Your task to perform on an android device: Open Google Chrome and click the shortcut for Amazon.com Image 0: 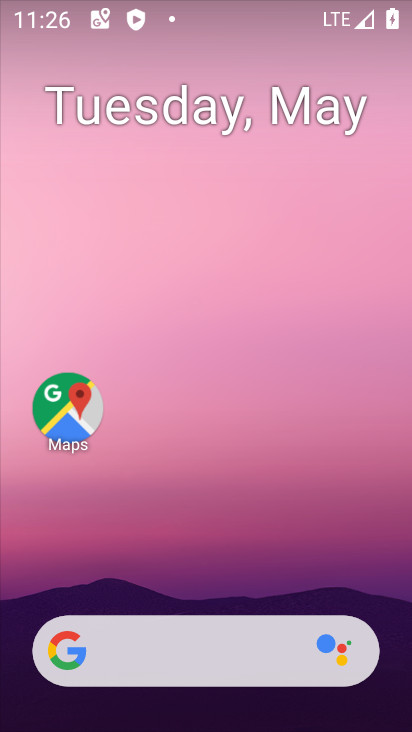
Step 0: drag from (171, 627) to (127, 29)
Your task to perform on an android device: Open Google Chrome and click the shortcut for Amazon.com Image 1: 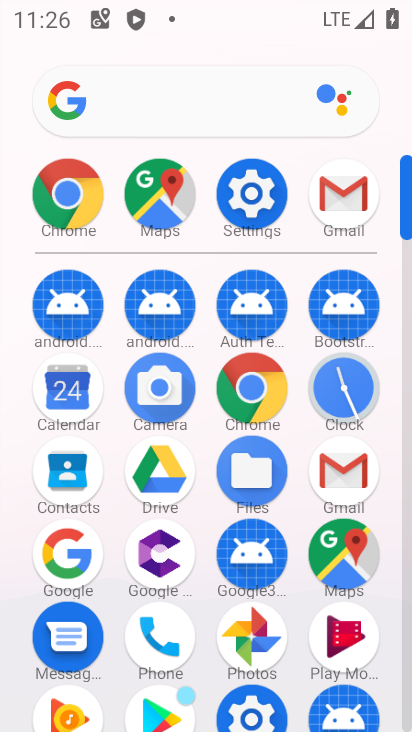
Step 1: click (75, 185)
Your task to perform on an android device: Open Google Chrome and click the shortcut for Amazon.com Image 2: 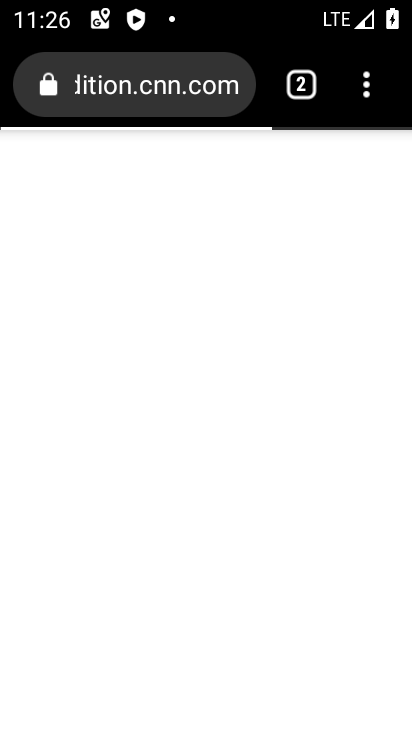
Step 2: click (189, 104)
Your task to perform on an android device: Open Google Chrome and click the shortcut for Amazon.com Image 3: 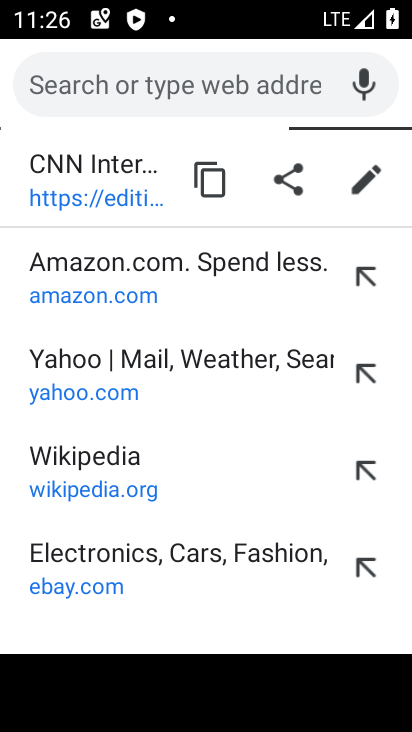
Step 3: type ""
Your task to perform on an android device: Open Google Chrome and click the shortcut for Amazon.com Image 4: 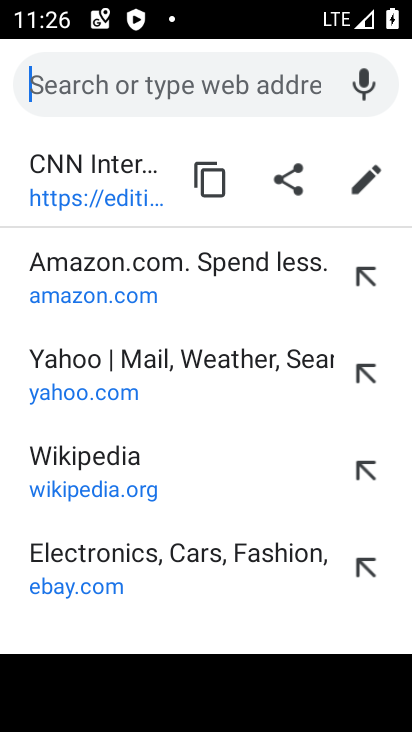
Step 4: press back button
Your task to perform on an android device: Open Google Chrome and click the shortcut for Amazon.com Image 5: 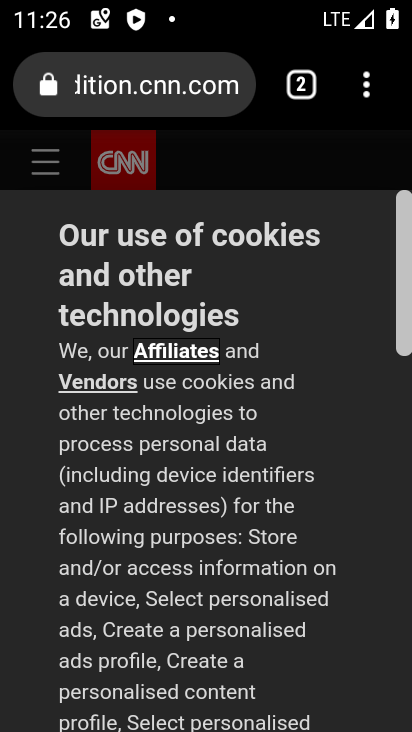
Step 5: click (304, 92)
Your task to perform on an android device: Open Google Chrome and click the shortcut for Amazon.com Image 6: 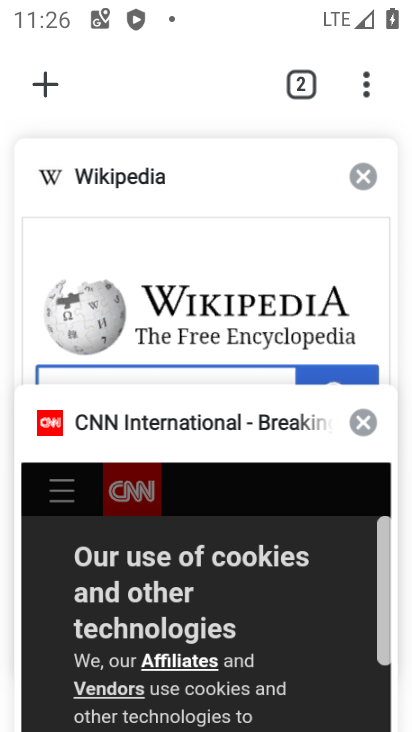
Step 6: click (38, 84)
Your task to perform on an android device: Open Google Chrome and click the shortcut for Amazon.com Image 7: 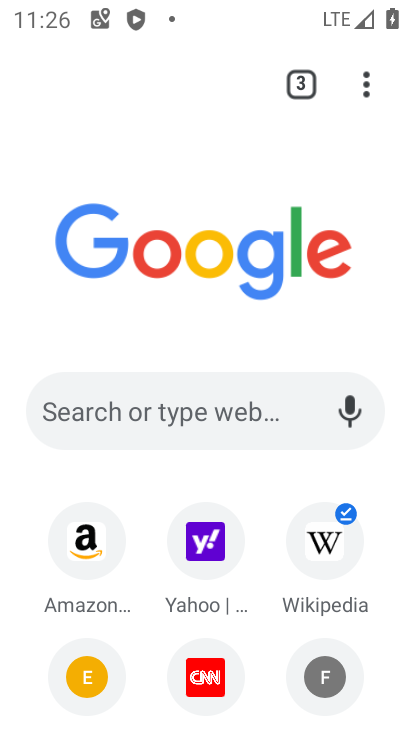
Step 7: click (90, 549)
Your task to perform on an android device: Open Google Chrome and click the shortcut for Amazon.com Image 8: 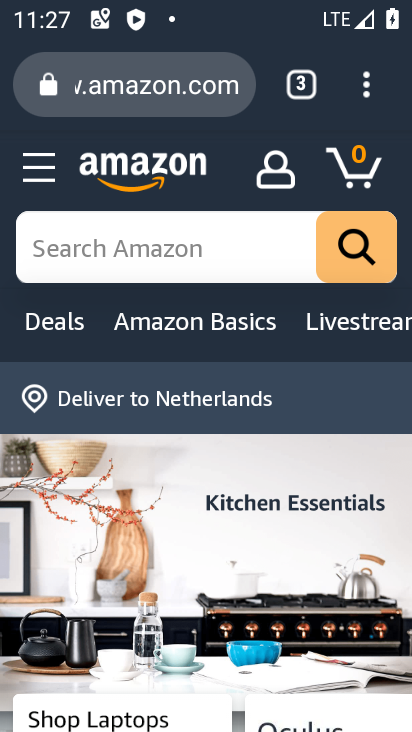
Step 8: task complete